Your task to perform on an android device: turn off notifications settings in the gmail app Image 0: 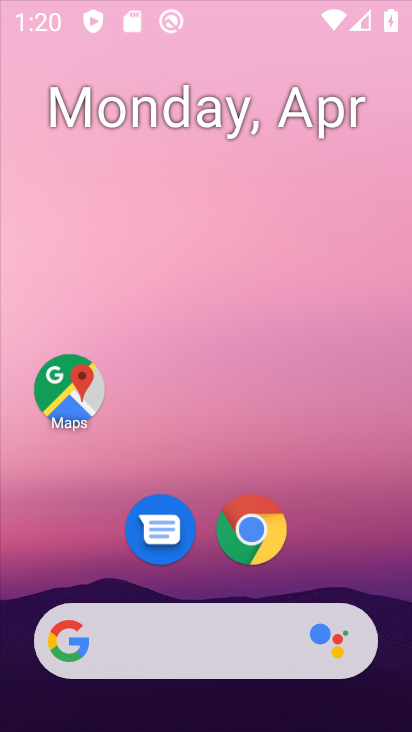
Step 0: click (308, 254)
Your task to perform on an android device: turn off notifications settings in the gmail app Image 1: 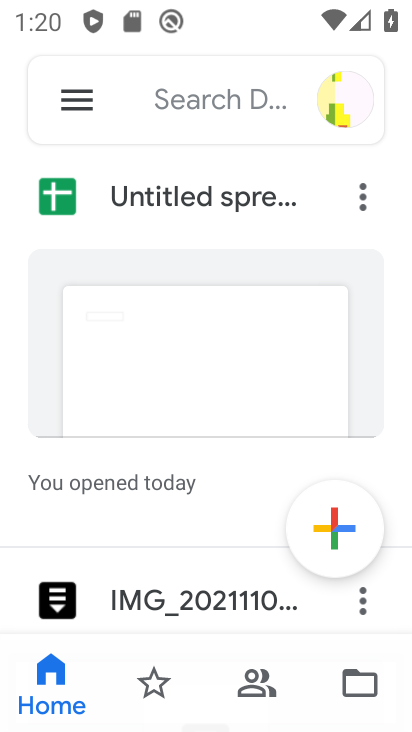
Step 1: press home button
Your task to perform on an android device: turn off notifications settings in the gmail app Image 2: 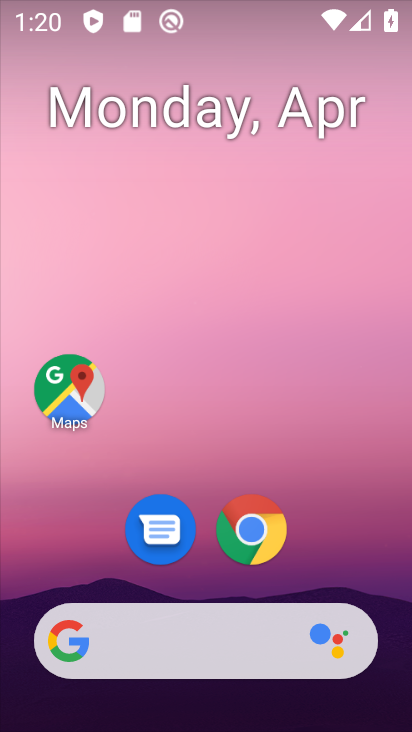
Step 2: drag from (326, 553) to (324, 247)
Your task to perform on an android device: turn off notifications settings in the gmail app Image 3: 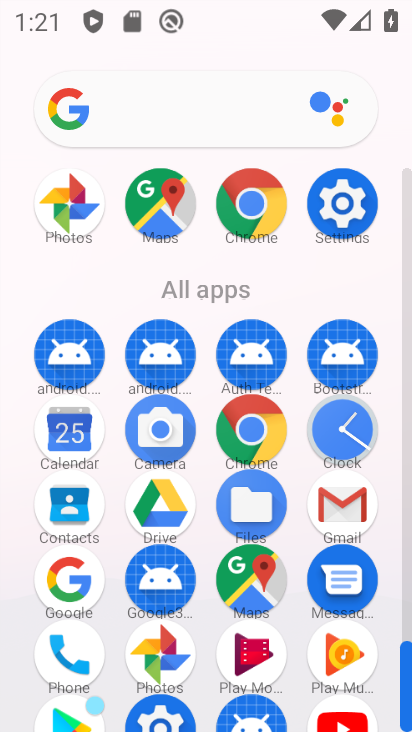
Step 3: click (238, 203)
Your task to perform on an android device: turn off notifications settings in the gmail app Image 4: 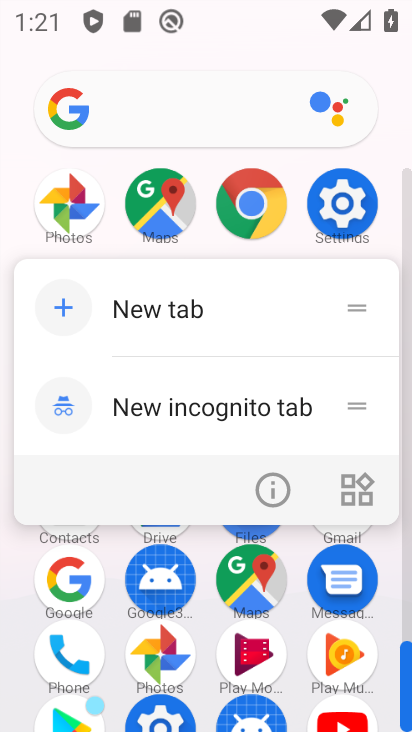
Step 4: press back button
Your task to perform on an android device: turn off notifications settings in the gmail app Image 5: 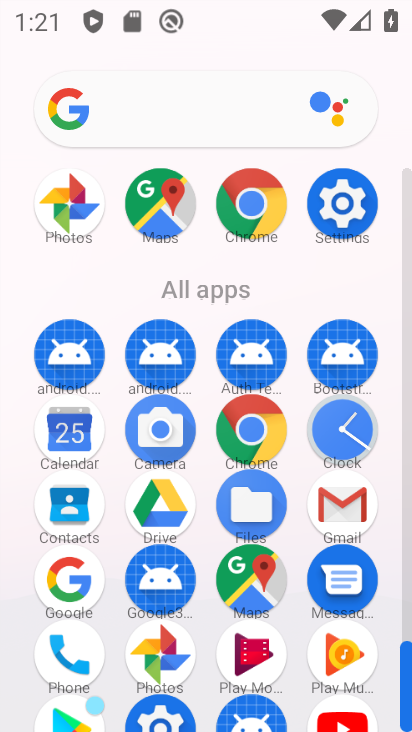
Step 5: click (345, 504)
Your task to perform on an android device: turn off notifications settings in the gmail app Image 6: 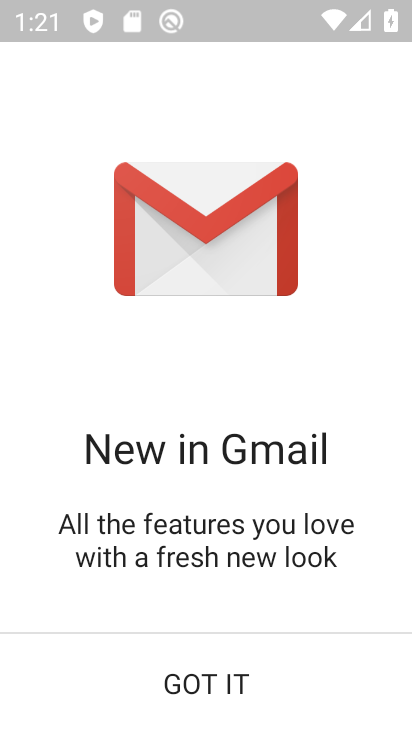
Step 6: click (205, 665)
Your task to perform on an android device: turn off notifications settings in the gmail app Image 7: 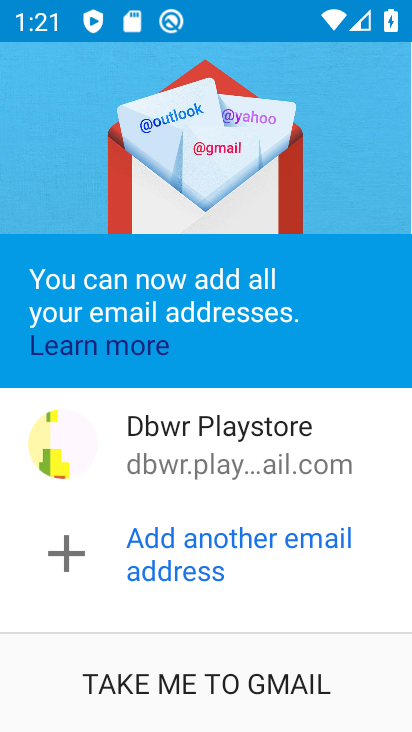
Step 7: click (205, 675)
Your task to perform on an android device: turn off notifications settings in the gmail app Image 8: 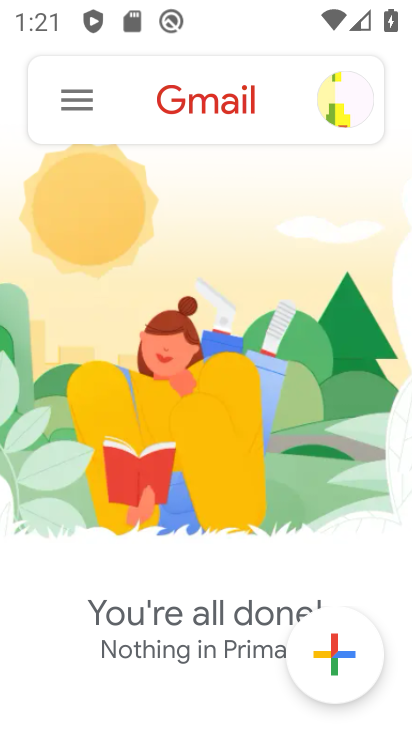
Step 8: click (79, 100)
Your task to perform on an android device: turn off notifications settings in the gmail app Image 9: 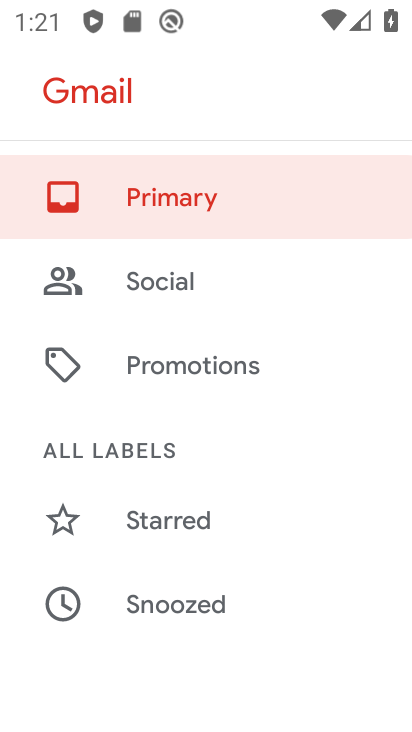
Step 9: drag from (199, 615) to (223, 250)
Your task to perform on an android device: turn off notifications settings in the gmail app Image 10: 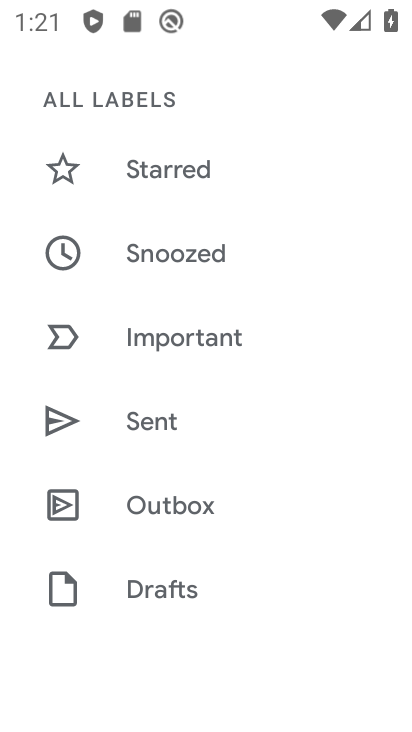
Step 10: drag from (163, 630) to (252, 168)
Your task to perform on an android device: turn off notifications settings in the gmail app Image 11: 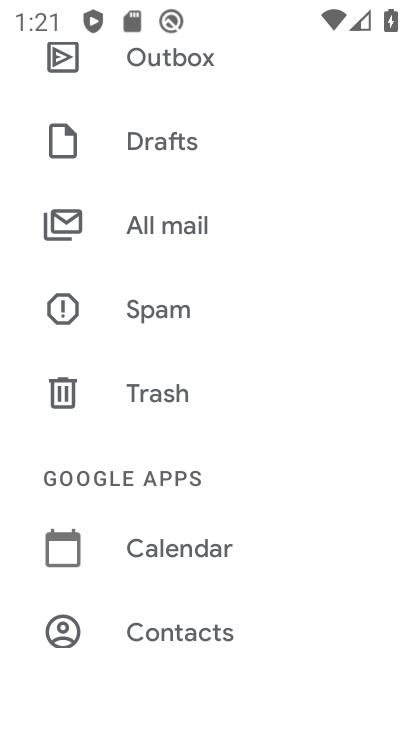
Step 11: drag from (199, 567) to (262, 167)
Your task to perform on an android device: turn off notifications settings in the gmail app Image 12: 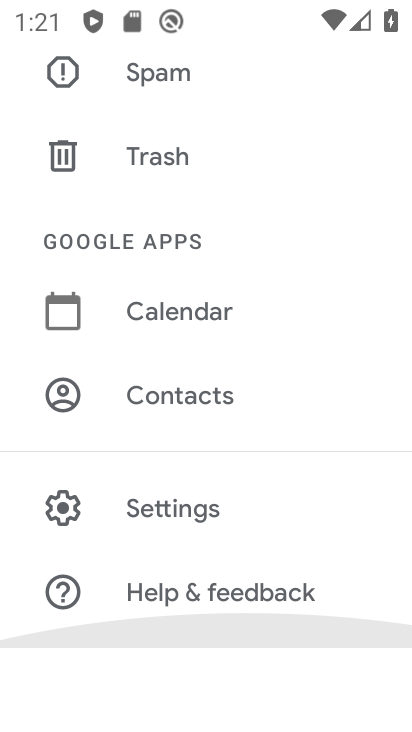
Step 12: click (134, 509)
Your task to perform on an android device: turn off notifications settings in the gmail app Image 13: 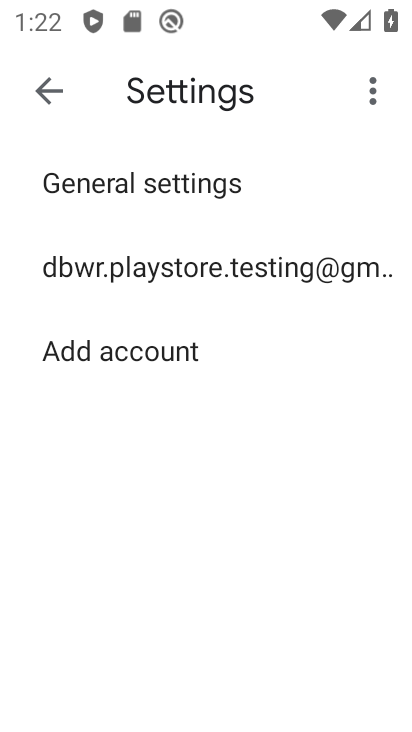
Step 13: click (167, 270)
Your task to perform on an android device: turn off notifications settings in the gmail app Image 14: 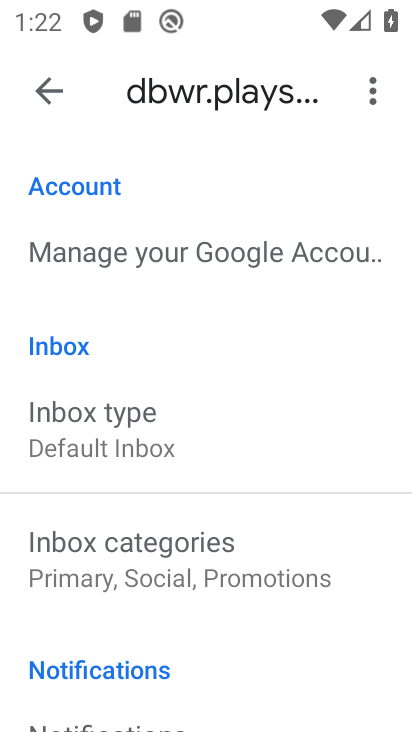
Step 14: drag from (218, 630) to (230, 491)
Your task to perform on an android device: turn off notifications settings in the gmail app Image 15: 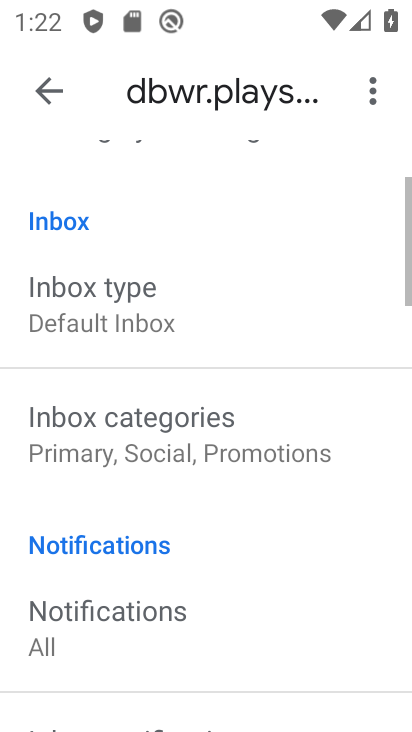
Step 15: click (197, 643)
Your task to perform on an android device: turn off notifications settings in the gmail app Image 16: 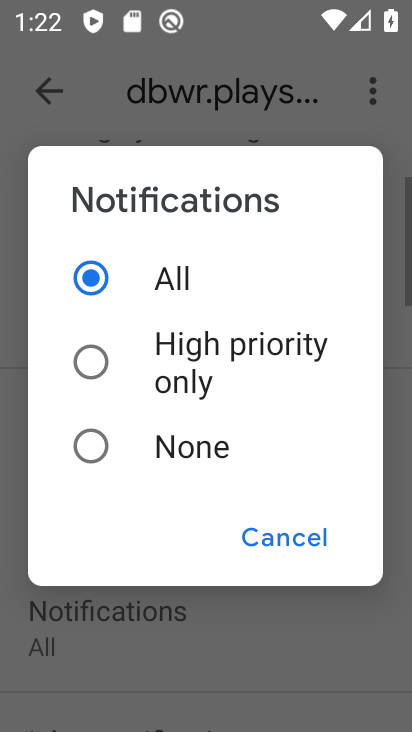
Step 16: click (175, 450)
Your task to perform on an android device: turn off notifications settings in the gmail app Image 17: 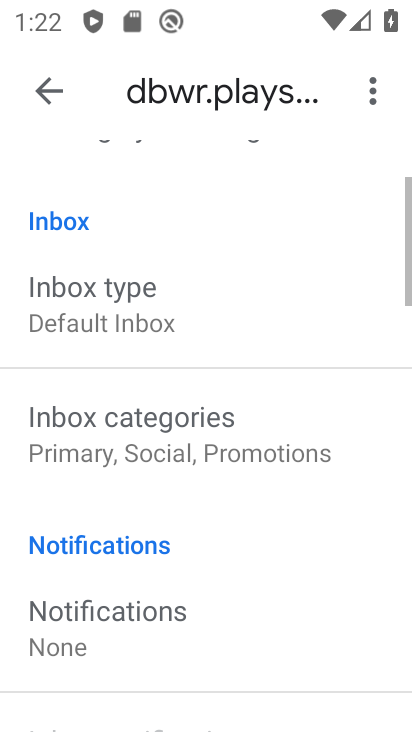
Step 17: task complete